Your task to perform on an android device: turn off picture-in-picture Image 0: 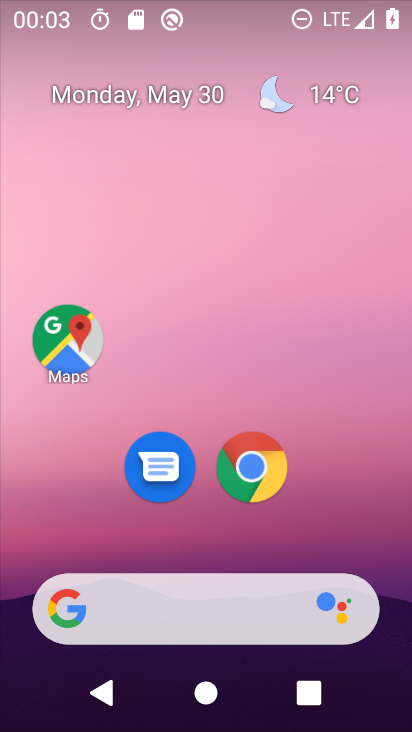
Step 0: click (233, 486)
Your task to perform on an android device: turn off picture-in-picture Image 1: 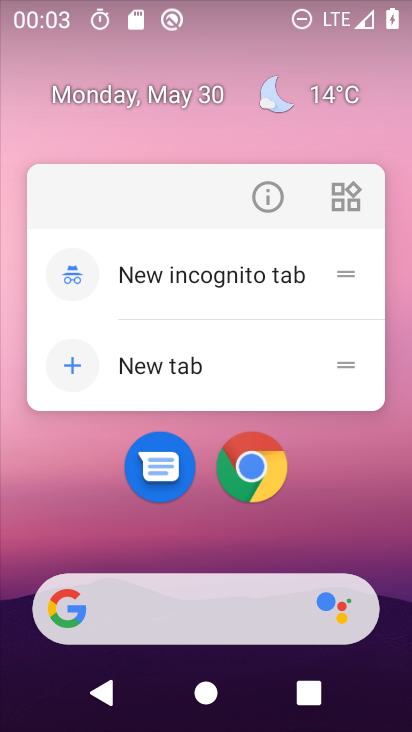
Step 1: click (276, 206)
Your task to perform on an android device: turn off picture-in-picture Image 2: 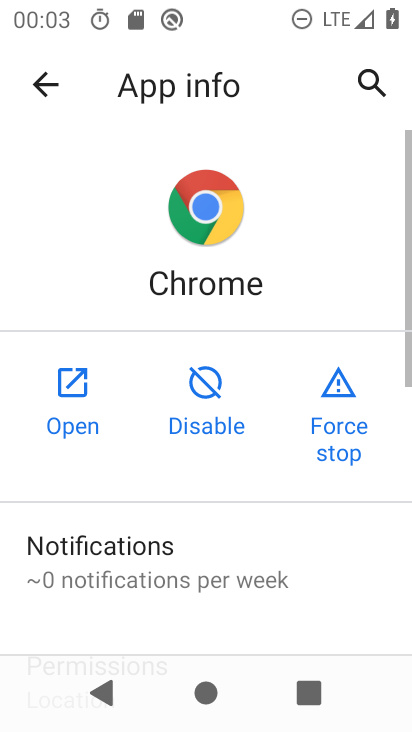
Step 2: drag from (237, 518) to (230, 132)
Your task to perform on an android device: turn off picture-in-picture Image 3: 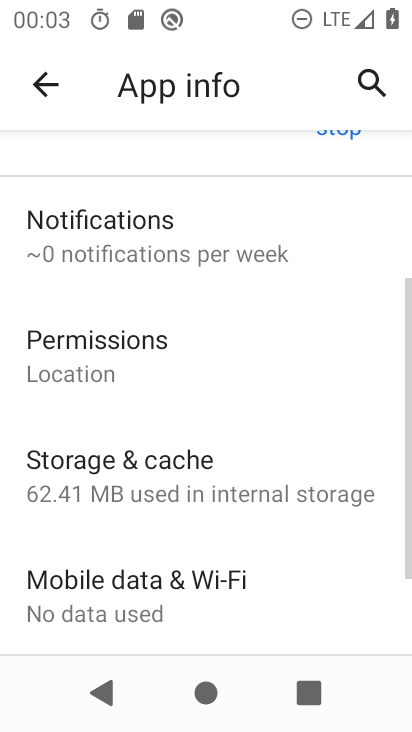
Step 3: drag from (246, 520) to (226, 186)
Your task to perform on an android device: turn off picture-in-picture Image 4: 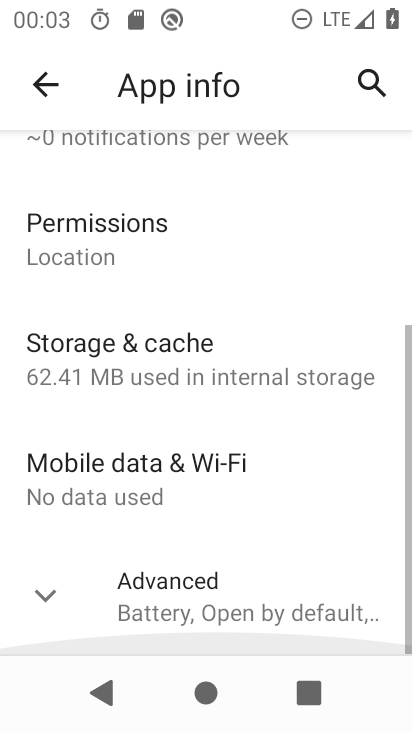
Step 4: drag from (219, 544) to (225, 165)
Your task to perform on an android device: turn off picture-in-picture Image 5: 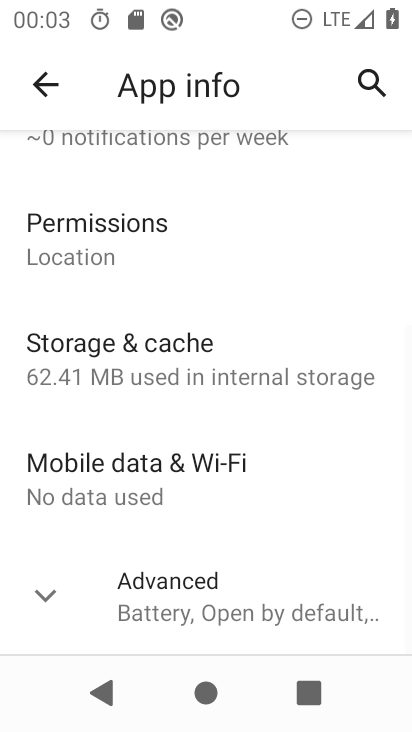
Step 5: click (203, 563)
Your task to perform on an android device: turn off picture-in-picture Image 6: 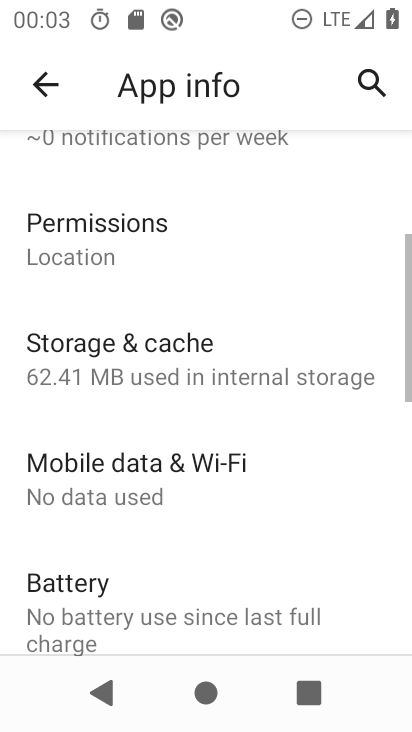
Step 6: drag from (203, 563) to (208, 170)
Your task to perform on an android device: turn off picture-in-picture Image 7: 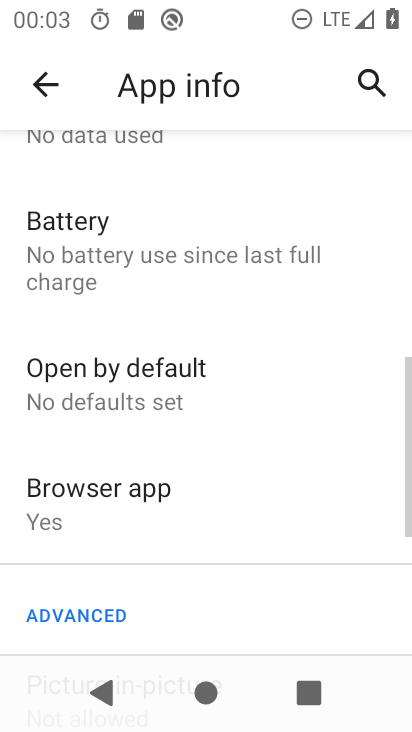
Step 7: drag from (217, 578) to (213, 224)
Your task to perform on an android device: turn off picture-in-picture Image 8: 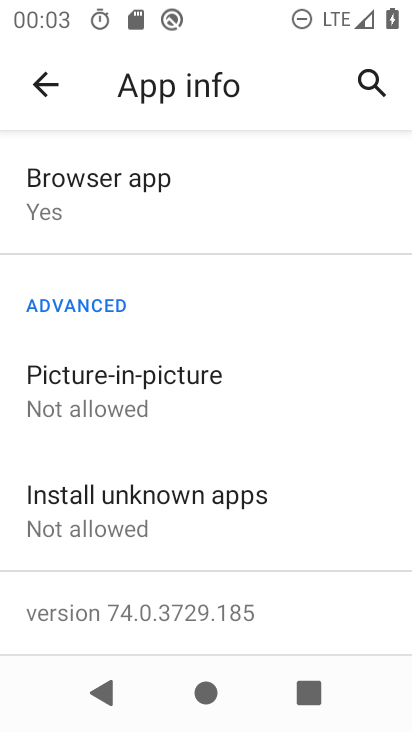
Step 8: drag from (182, 554) to (215, 232)
Your task to perform on an android device: turn off picture-in-picture Image 9: 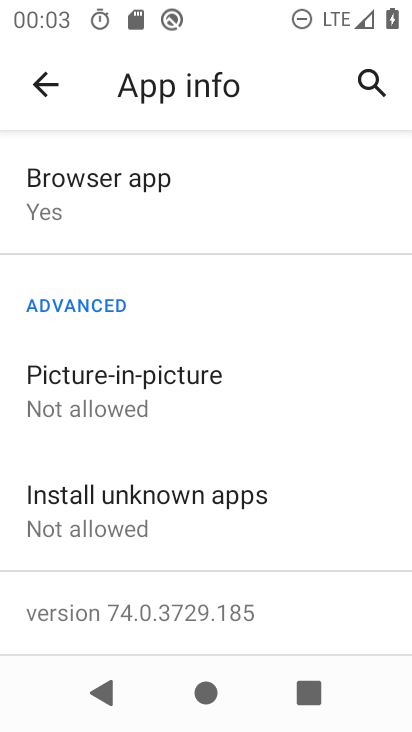
Step 9: click (146, 412)
Your task to perform on an android device: turn off picture-in-picture Image 10: 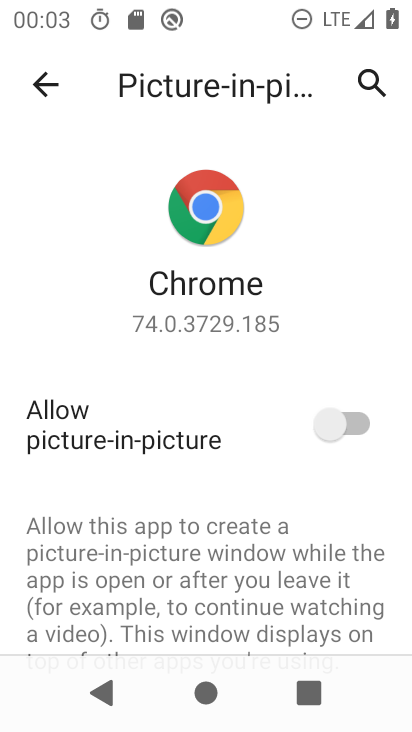
Step 10: task complete